Your task to perform on an android device: Open sound settings Image 0: 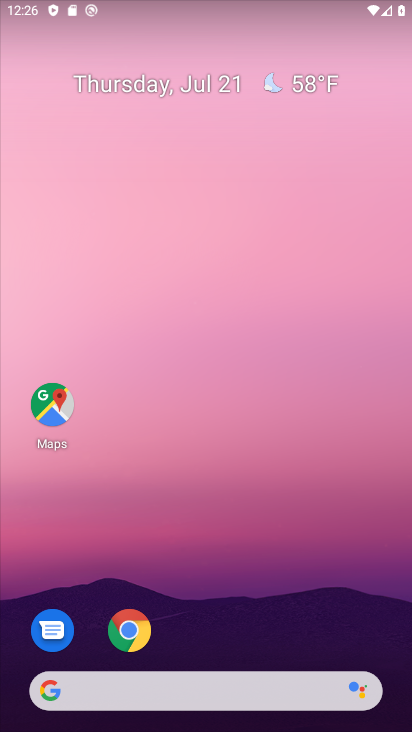
Step 0: drag from (216, 657) to (139, 194)
Your task to perform on an android device: Open sound settings Image 1: 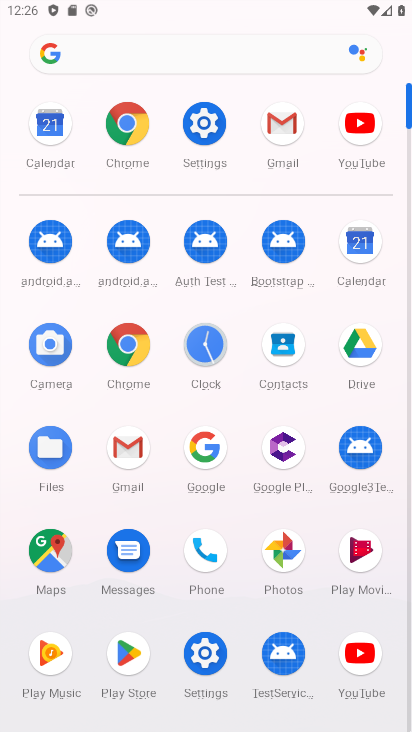
Step 1: click (200, 662)
Your task to perform on an android device: Open sound settings Image 2: 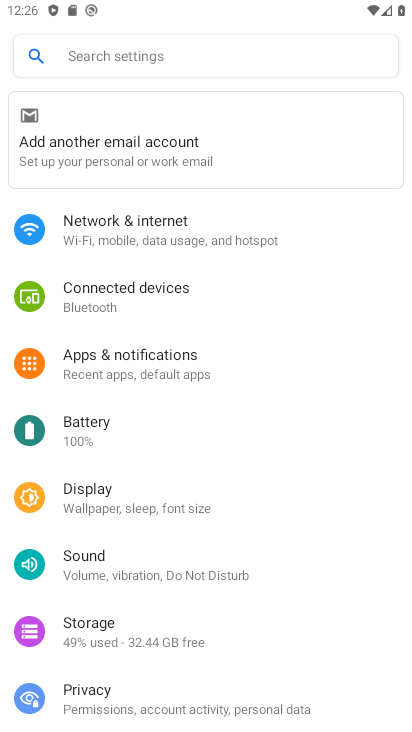
Step 2: click (101, 548)
Your task to perform on an android device: Open sound settings Image 3: 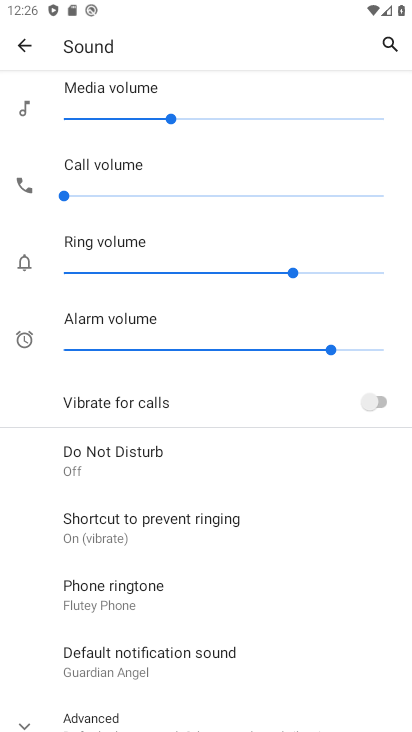
Step 3: task complete